Your task to perform on an android device: Open Google Image 0: 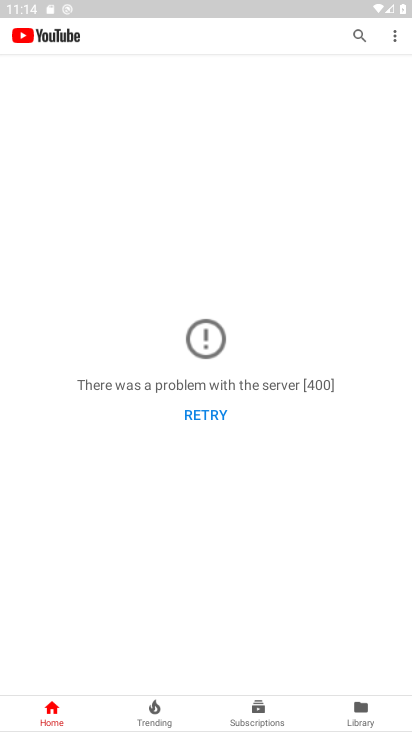
Step 0: press home button
Your task to perform on an android device: Open Google Image 1: 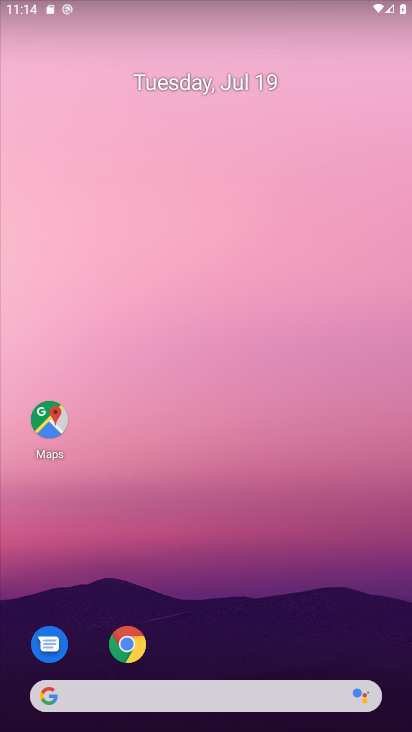
Step 1: click (53, 692)
Your task to perform on an android device: Open Google Image 2: 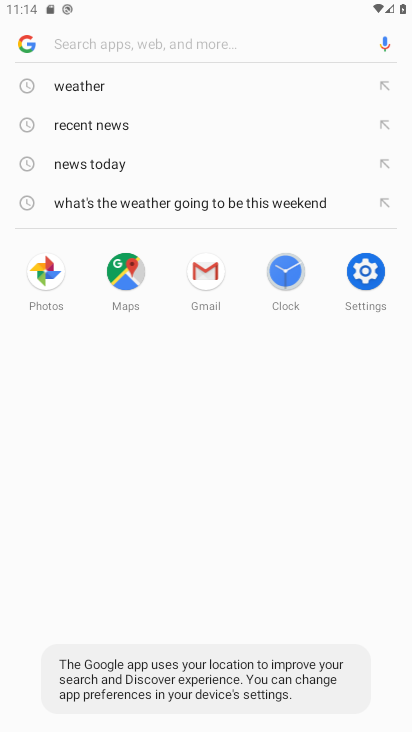
Step 2: click (33, 45)
Your task to perform on an android device: Open Google Image 3: 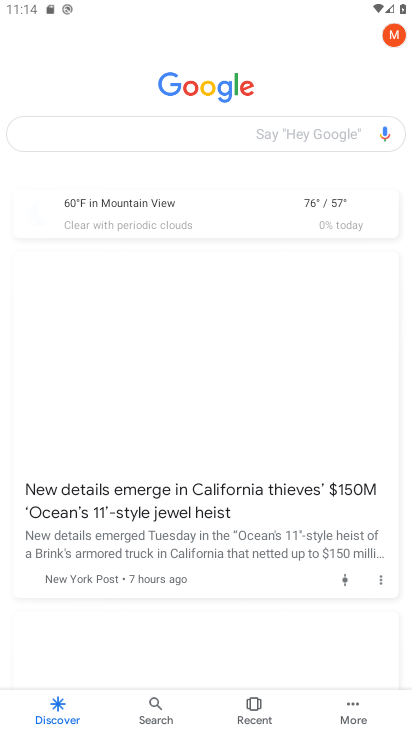
Step 3: task complete